Your task to perform on an android device: toggle priority inbox in the gmail app Image 0: 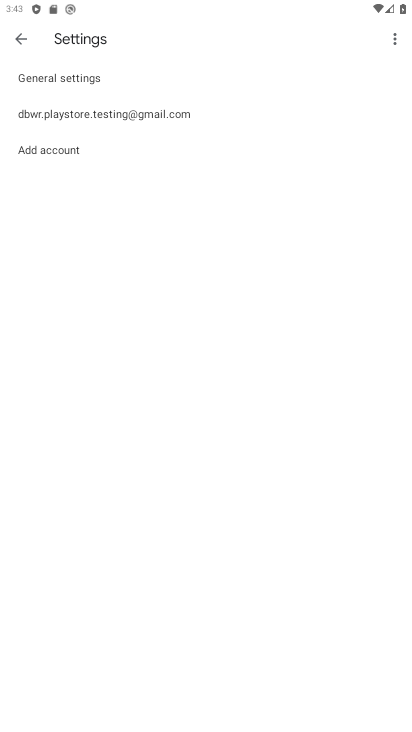
Step 0: press home button
Your task to perform on an android device: toggle priority inbox in the gmail app Image 1: 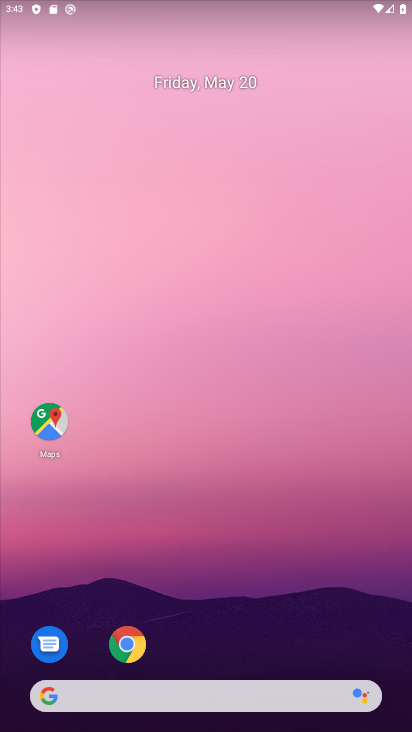
Step 1: drag from (211, 688) to (289, 44)
Your task to perform on an android device: toggle priority inbox in the gmail app Image 2: 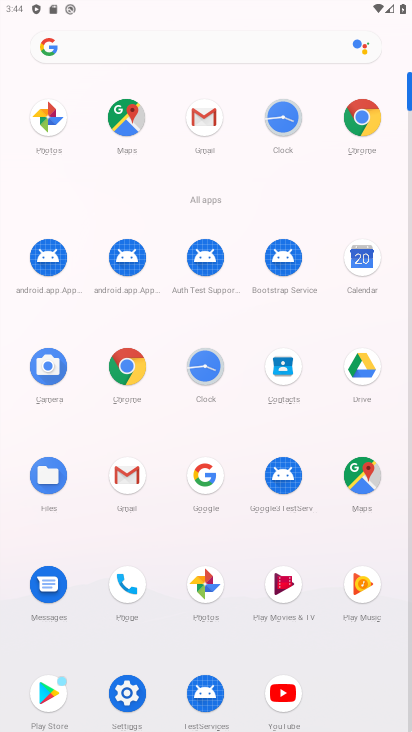
Step 2: click (192, 114)
Your task to perform on an android device: toggle priority inbox in the gmail app Image 3: 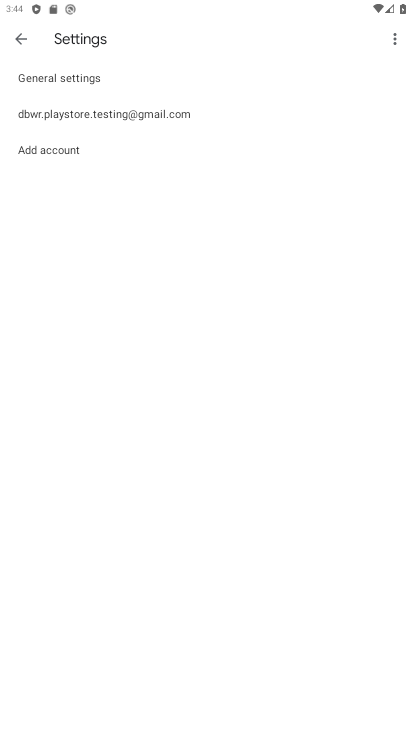
Step 3: click (56, 118)
Your task to perform on an android device: toggle priority inbox in the gmail app Image 4: 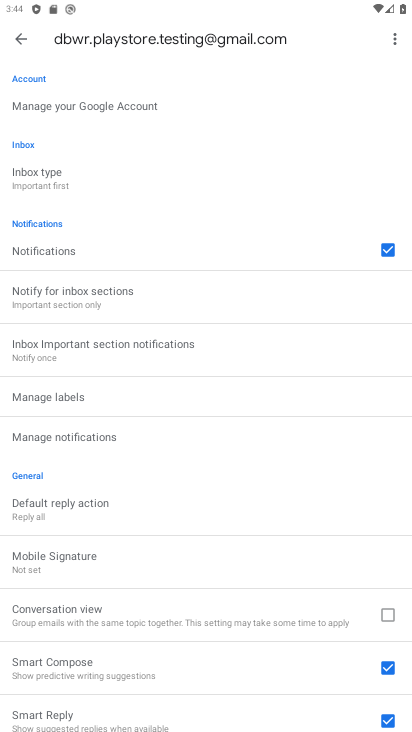
Step 4: click (97, 193)
Your task to perform on an android device: toggle priority inbox in the gmail app Image 5: 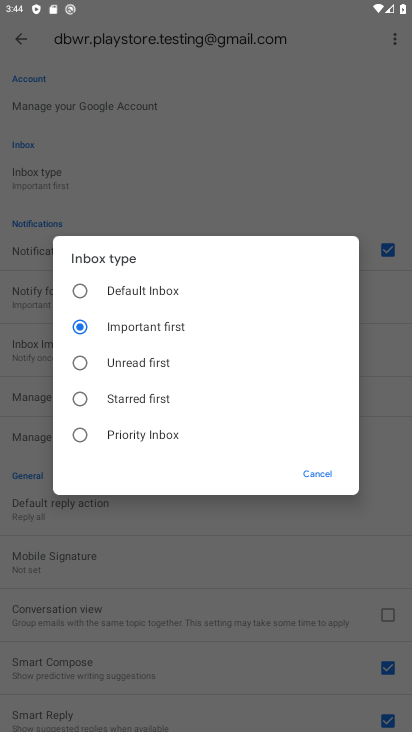
Step 5: click (136, 433)
Your task to perform on an android device: toggle priority inbox in the gmail app Image 6: 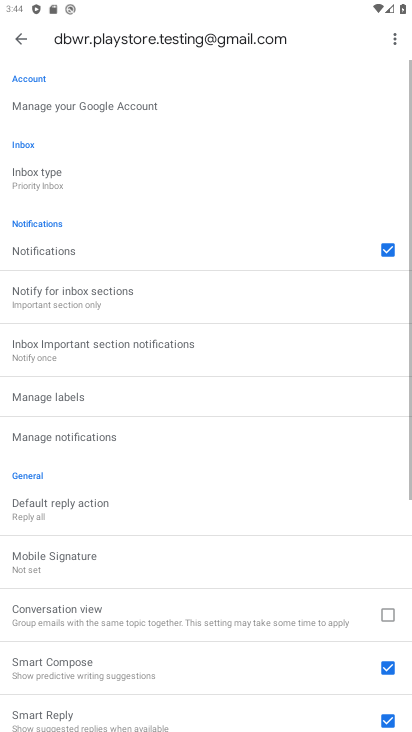
Step 6: click (83, 178)
Your task to perform on an android device: toggle priority inbox in the gmail app Image 7: 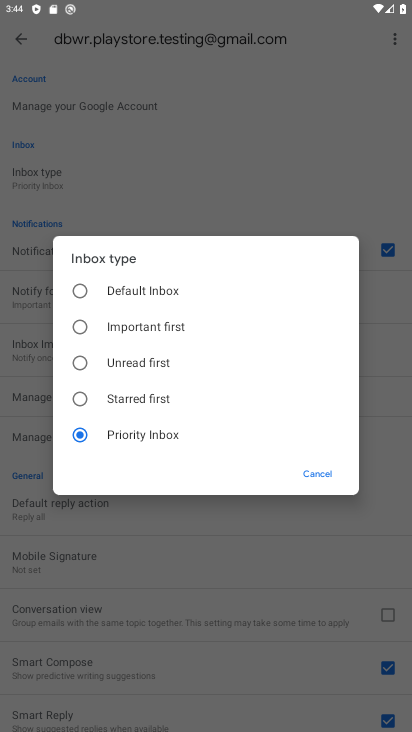
Step 7: task complete